Your task to perform on an android device: turn smart compose on in the gmail app Image 0: 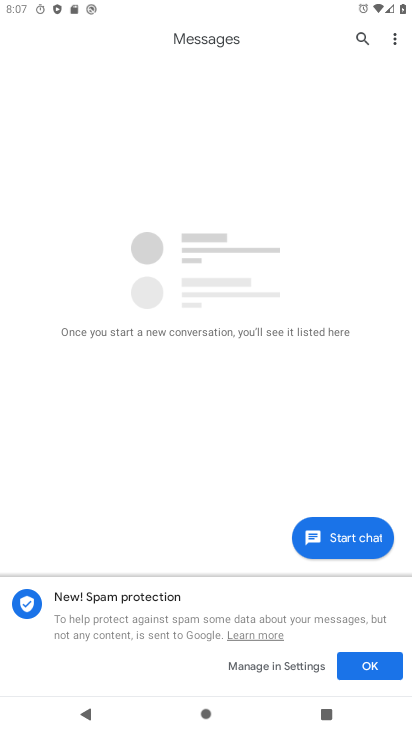
Step 0: press back button
Your task to perform on an android device: turn smart compose on in the gmail app Image 1: 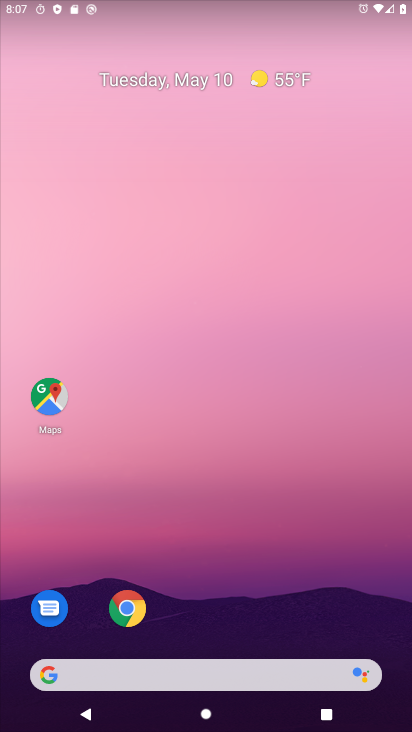
Step 1: drag from (250, 593) to (200, 4)
Your task to perform on an android device: turn smart compose on in the gmail app Image 2: 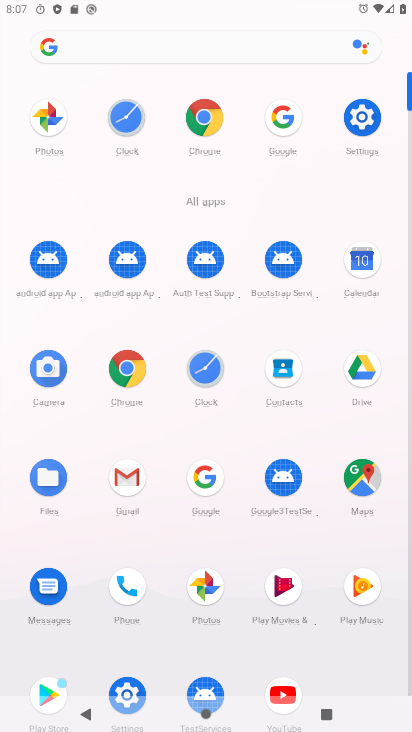
Step 2: click (125, 481)
Your task to perform on an android device: turn smart compose on in the gmail app Image 3: 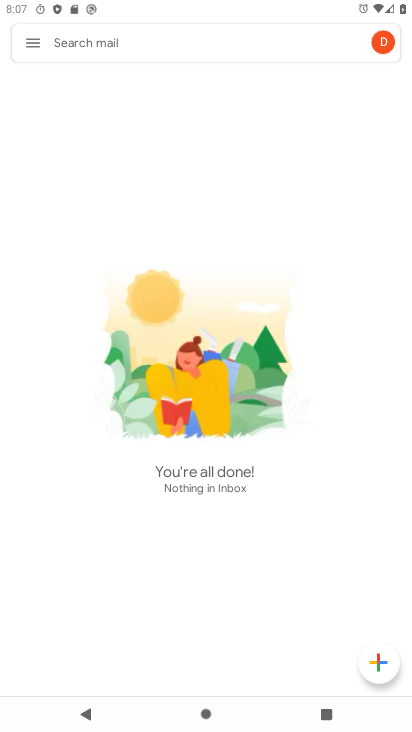
Step 3: click (29, 41)
Your task to perform on an android device: turn smart compose on in the gmail app Image 4: 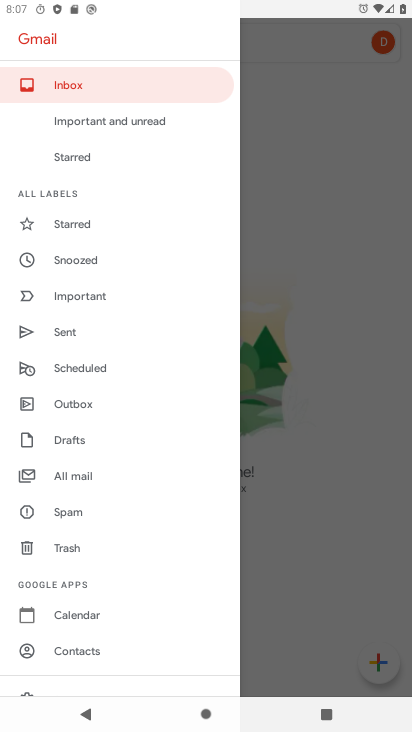
Step 4: drag from (121, 504) to (128, 399)
Your task to perform on an android device: turn smart compose on in the gmail app Image 5: 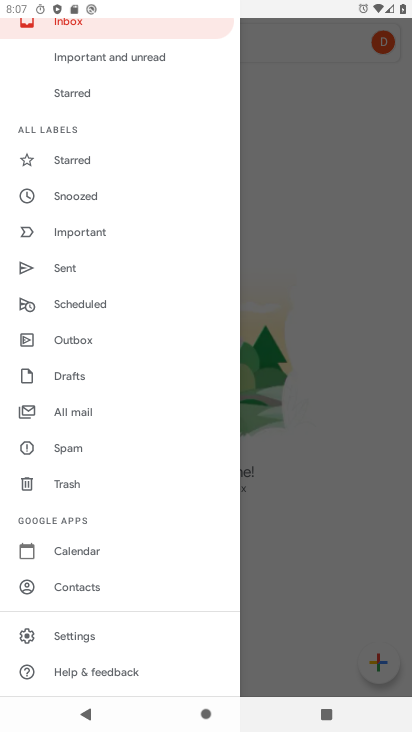
Step 5: click (82, 630)
Your task to perform on an android device: turn smart compose on in the gmail app Image 6: 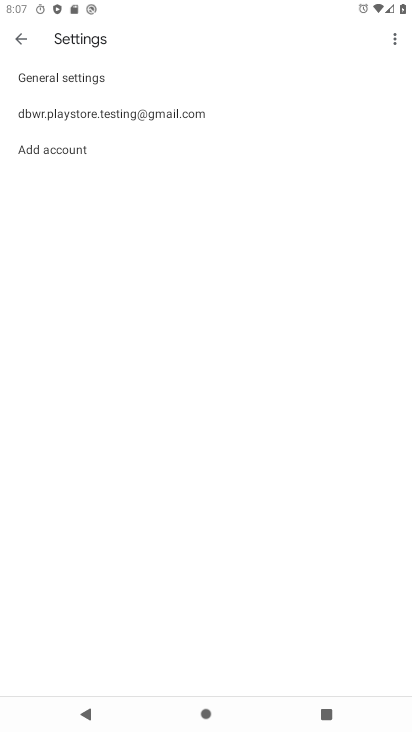
Step 6: click (88, 108)
Your task to perform on an android device: turn smart compose on in the gmail app Image 7: 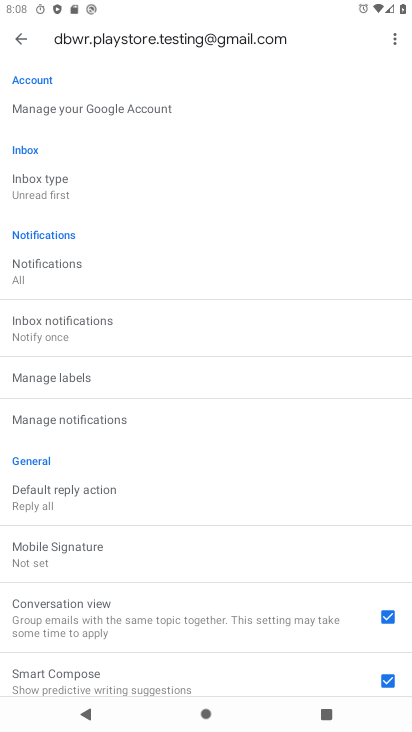
Step 7: task complete